Your task to perform on an android device: turn notification dots on Image 0: 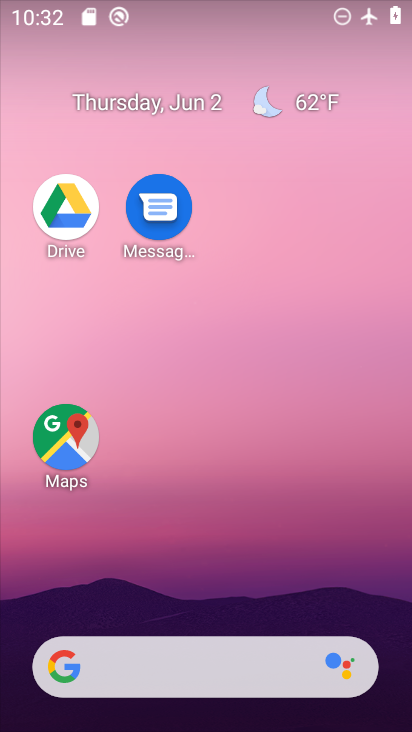
Step 0: drag from (205, 620) to (204, 5)
Your task to perform on an android device: turn notification dots on Image 1: 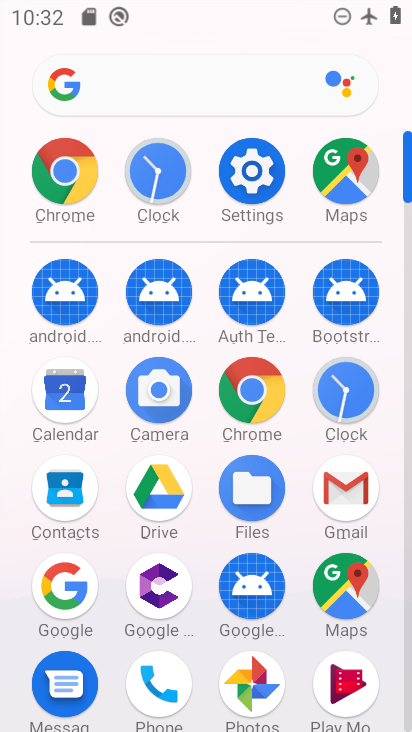
Step 1: click (237, 175)
Your task to perform on an android device: turn notification dots on Image 2: 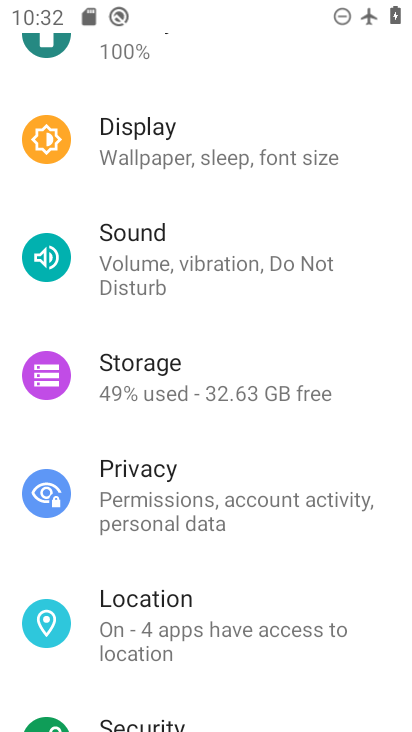
Step 2: drag from (243, 266) to (201, 671)
Your task to perform on an android device: turn notification dots on Image 3: 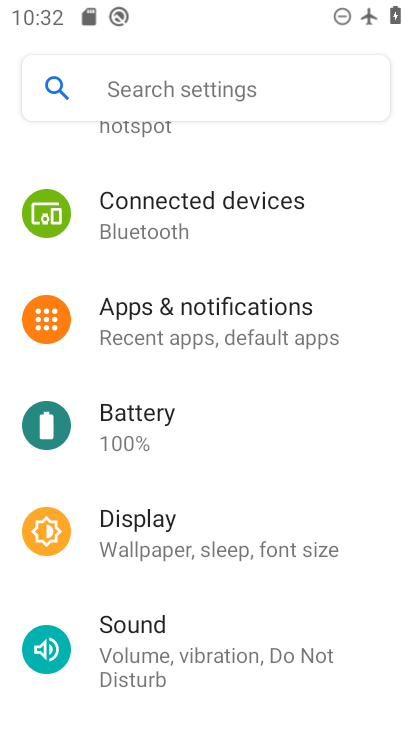
Step 3: click (240, 356)
Your task to perform on an android device: turn notification dots on Image 4: 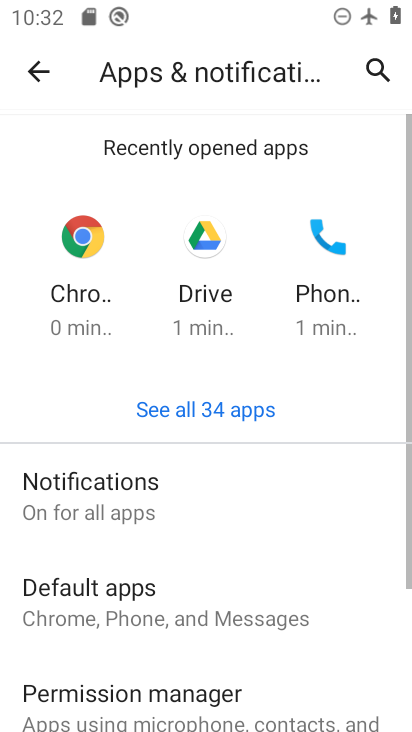
Step 4: click (108, 506)
Your task to perform on an android device: turn notification dots on Image 5: 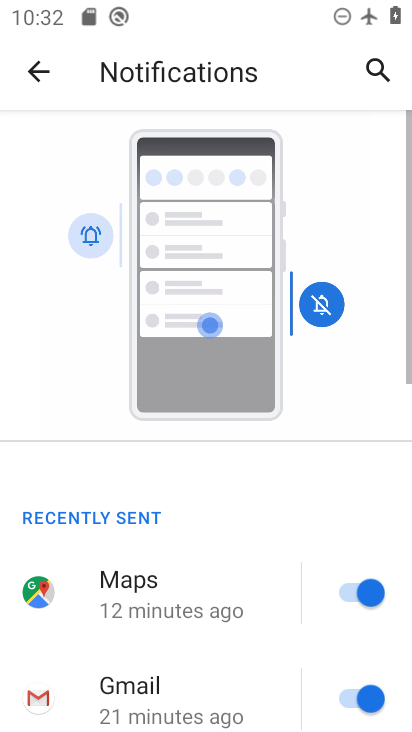
Step 5: drag from (234, 631) to (136, 22)
Your task to perform on an android device: turn notification dots on Image 6: 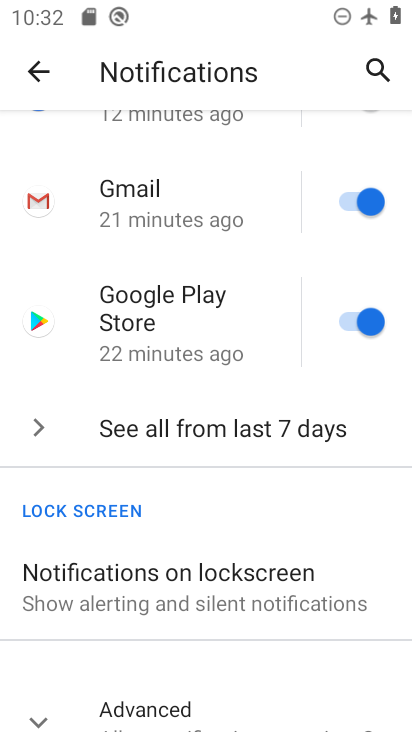
Step 6: click (189, 681)
Your task to perform on an android device: turn notification dots on Image 7: 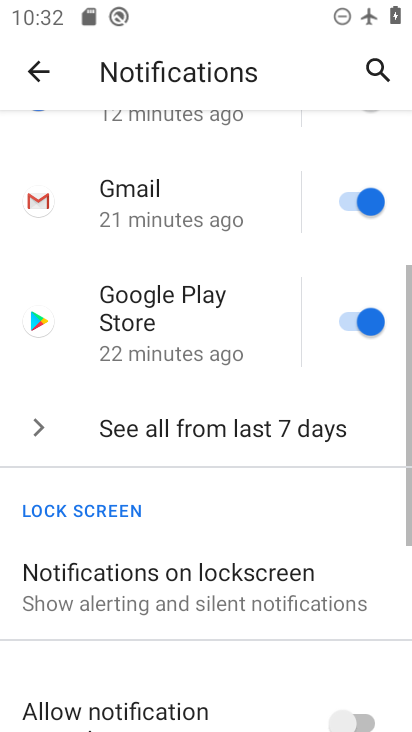
Step 7: task complete